Your task to perform on an android device: Open notification settings Image 0: 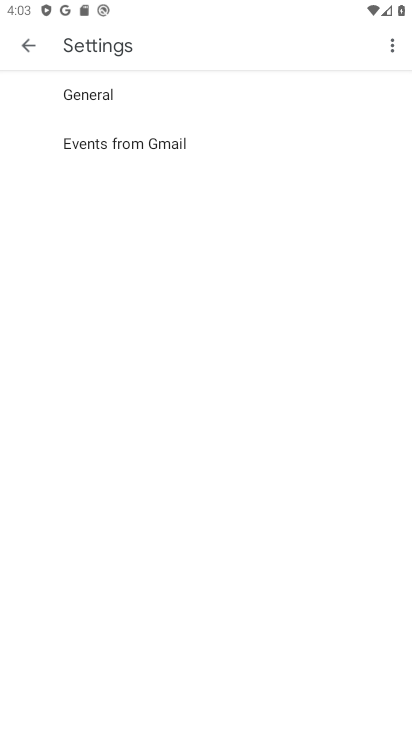
Step 0: press home button
Your task to perform on an android device: Open notification settings Image 1: 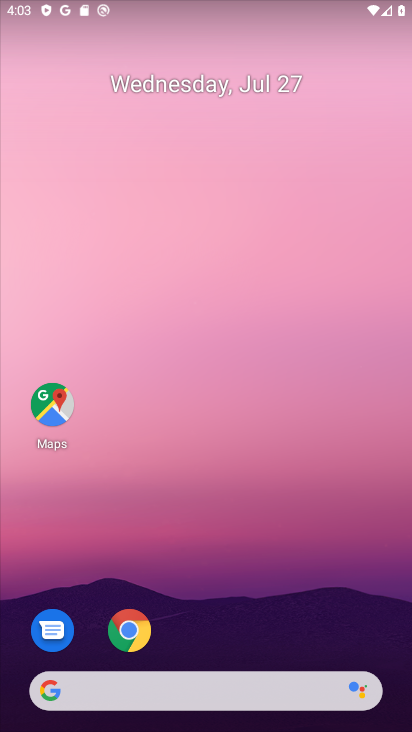
Step 1: drag from (217, 611) to (314, 3)
Your task to perform on an android device: Open notification settings Image 2: 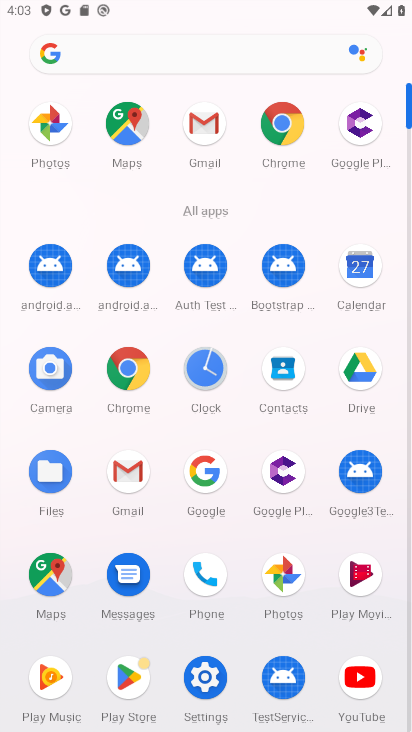
Step 2: click (208, 670)
Your task to perform on an android device: Open notification settings Image 3: 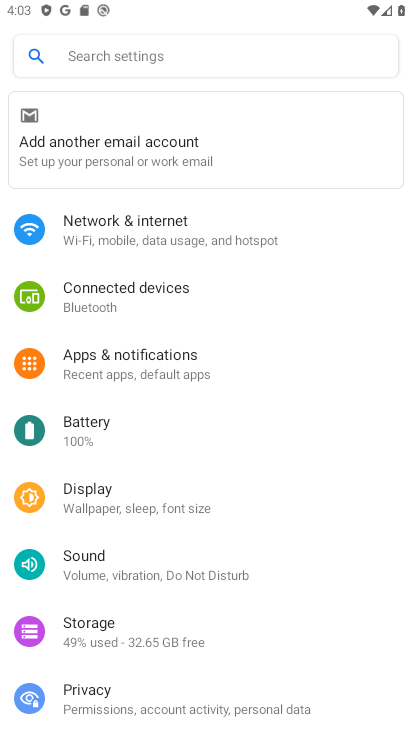
Step 3: click (184, 369)
Your task to perform on an android device: Open notification settings Image 4: 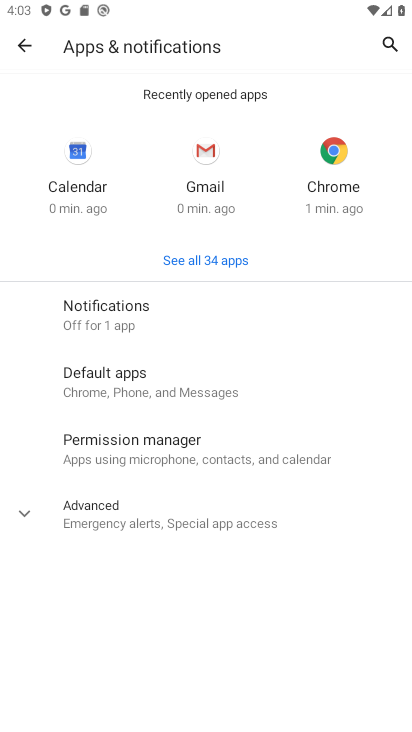
Step 4: click (130, 326)
Your task to perform on an android device: Open notification settings Image 5: 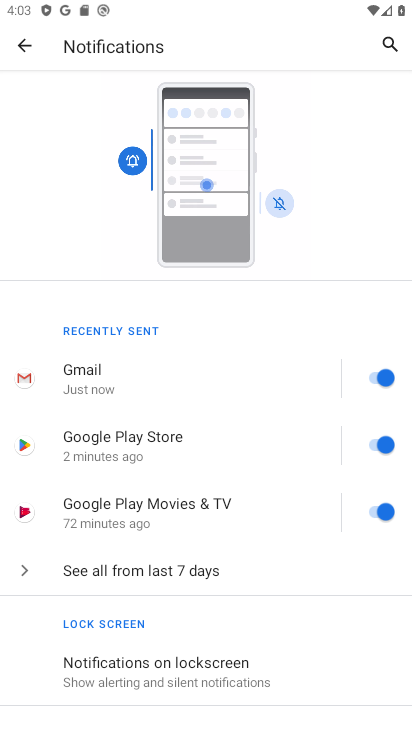
Step 5: task complete